Your task to perform on an android device: open a new tab in the chrome app Image 0: 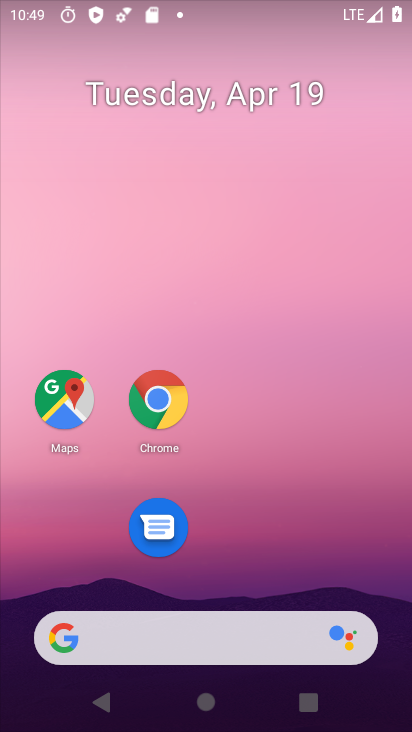
Step 0: drag from (277, 650) to (280, 103)
Your task to perform on an android device: open a new tab in the chrome app Image 1: 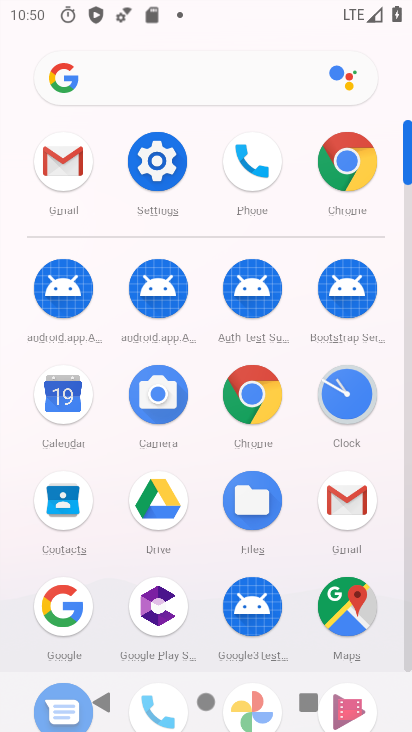
Step 1: click (252, 402)
Your task to perform on an android device: open a new tab in the chrome app Image 2: 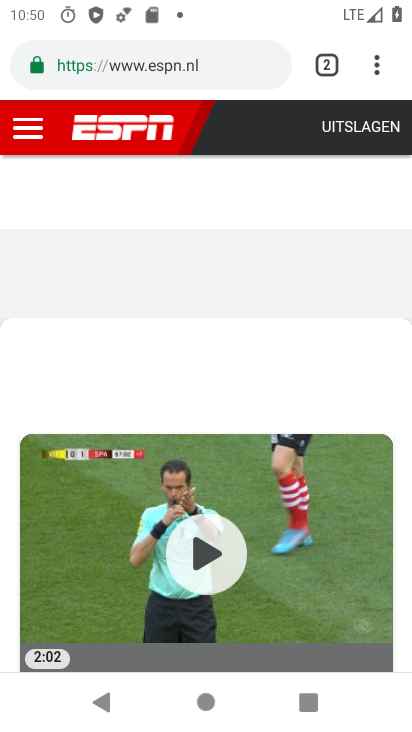
Step 2: click (316, 63)
Your task to perform on an android device: open a new tab in the chrome app Image 3: 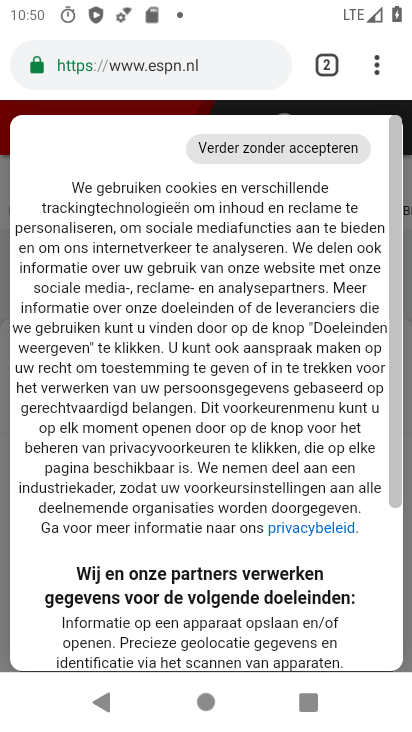
Step 3: click (323, 66)
Your task to perform on an android device: open a new tab in the chrome app Image 4: 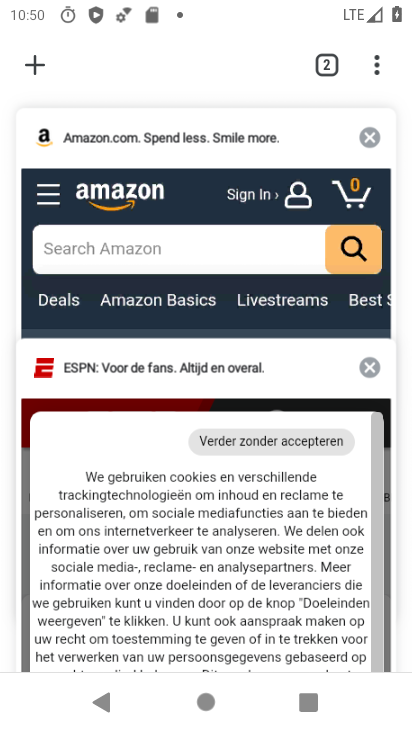
Step 4: click (34, 71)
Your task to perform on an android device: open a new tab in the chrome app Image 5: 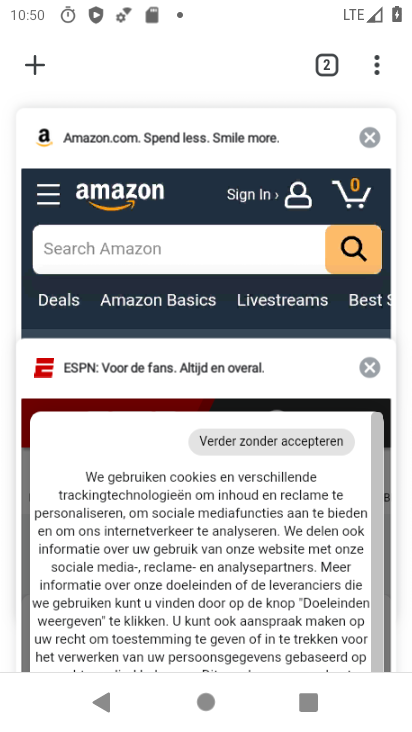
Step 5: click (38, 63)
Your task to perform on an android device: open a new tab in the chrome app Image 6: 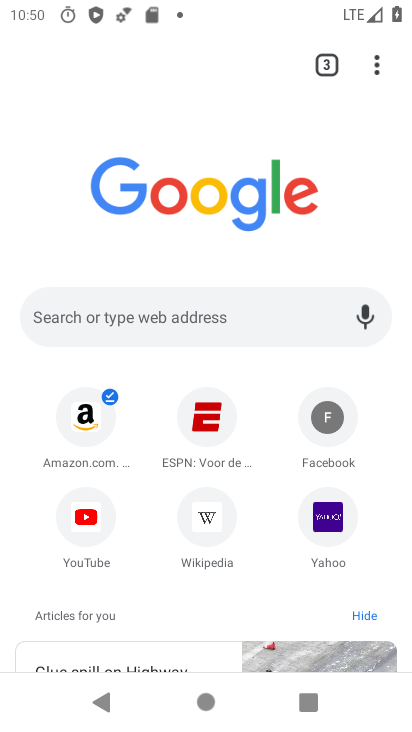
Step 6: task complete